Your task to perform on an android device: Open my contact list Image 0: 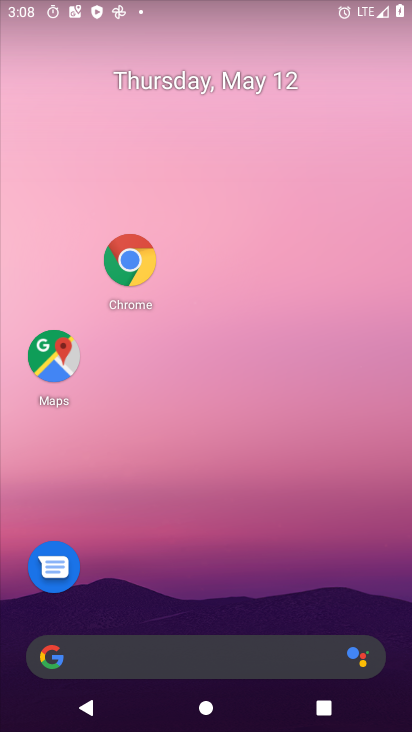
Step 0: drag from (189, 641) to (212, 195)
Your task to perform on an android device: Open my contact list Image 1: 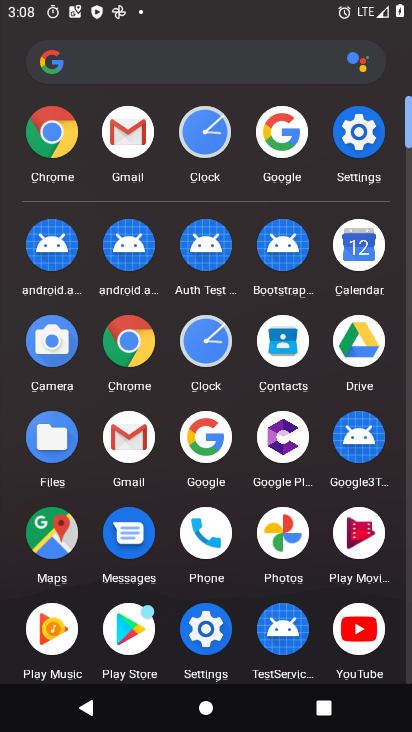
Step 1: click (280, 348)
Your task to perform on an android device: Open my contact list Image 2: 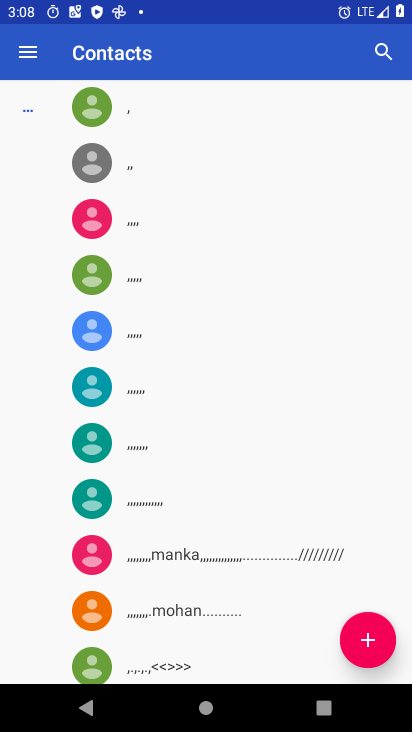
Step 2: task complete